Your task to perform on an android device: open app "Pinterest" (install if not already installed) and enter user name: "Switzerland@yahoo.com" and password: "arithmetics" Image 0: 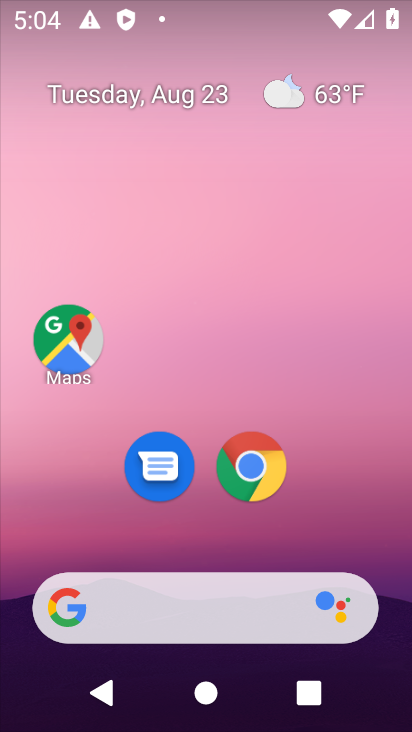
Step 0: drag from (216, 589) to (224, 81)
Your task to perform on an android device: open app "Pinterest" (install if not already installed) and enter user name: "Switzerland@yahoo.com" and password: "arithmetics" Image 1: 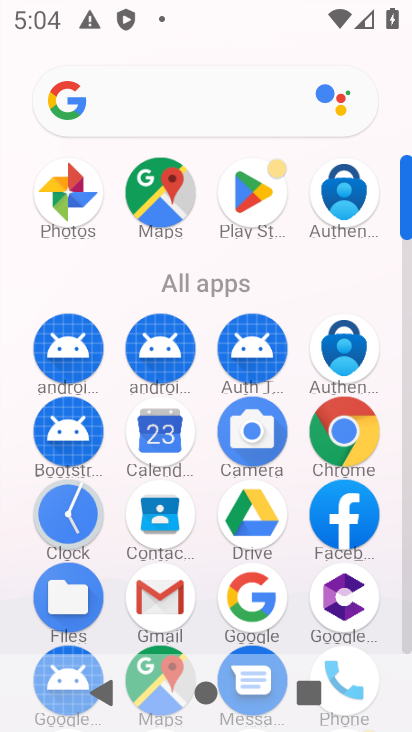
Step 1: click (245, 202)
Your task to perform on an android device: open app "Pinterest" (install if not already installed) and enter user name: "Switzerland@yahoo.com" and password: "arithmetics" Image 2: 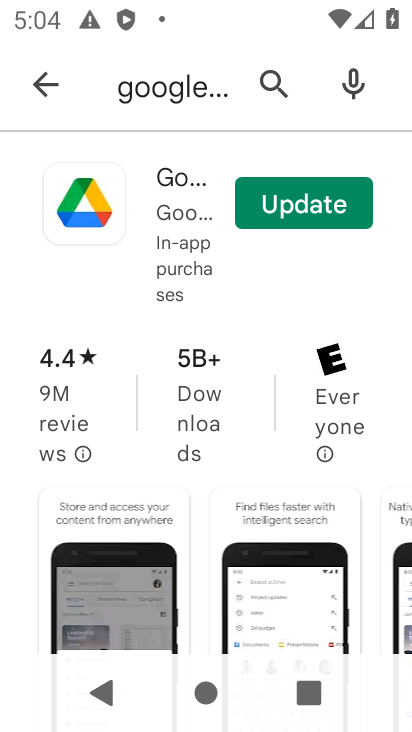
Step 2: click (281, 92)
Your task to perform on an android device: open app "Pinterest" (install if not already installed) and enter user name: "Switzerland@yahoo.com" and password: "arithmetics" Image 3: 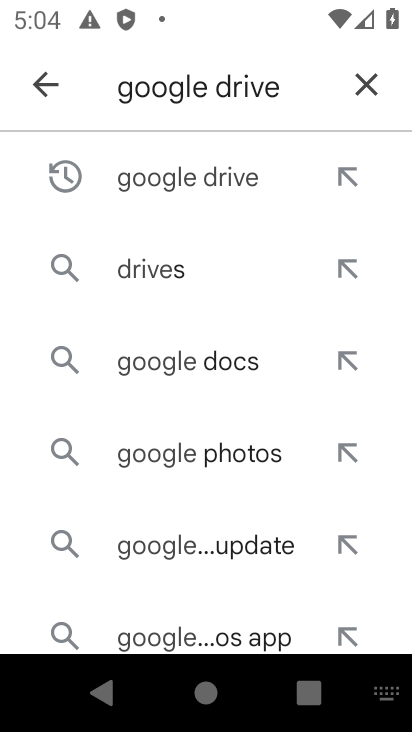
Step 3: click (349, 91)
Your task to perform on an android device: open app "Pinterest" (install if not already installed) and enter user name: "Switzerland@yahoo.com" and password: "arithmetics" Image 4: 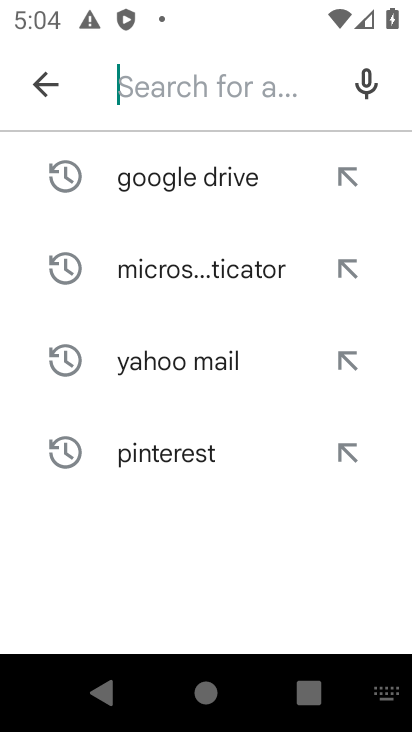
Step 4: type "pintereset"
Your task to perform on an android device: open app "Pinterest" (install if not already installed) and enter user name: "Switzerland@yahoo.com" and password: "arithmetics" Image 5: 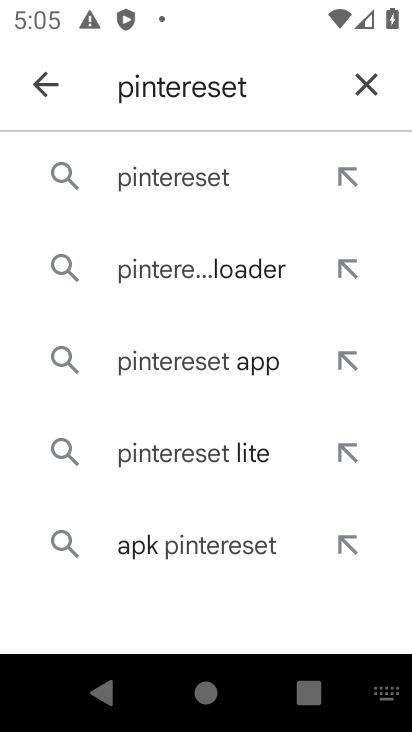
Step 5: click (197, 187)
Your task to perform on an android device: open app "Pinterest" (install if not already installed) and enter user name: "Switzerland@yahoo.com" and password: "arithmetics" Image 6: 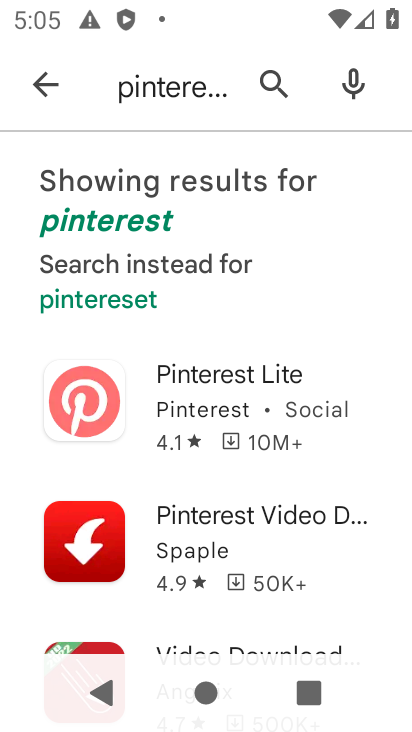
Step 6: click (129, 219)
Your task to perform on an android device: open app "Pinterest" (install if not already installed) and enter user name: "Switzerland@yahoo.com" and password: "arithmetics" Image 7: 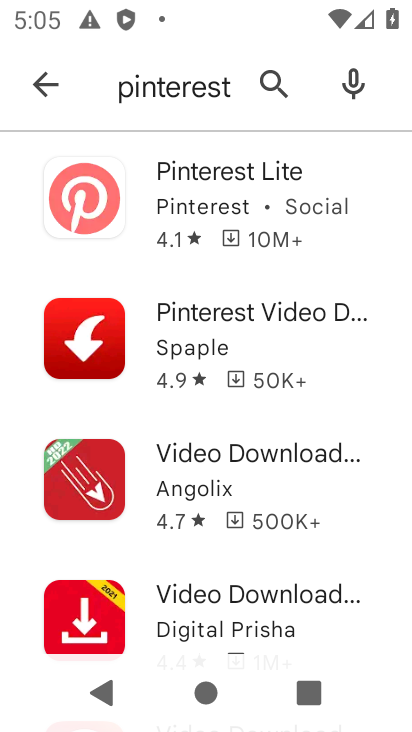
Step 7: task complete